Your task to perform on an android device: Go to internet settings Image 0: 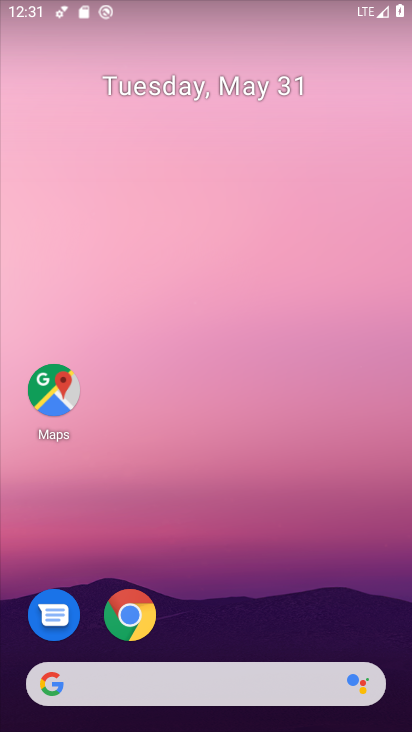
Step 0: drag from (224, 627) to (247, 431)
Your task to perform on an android device: Go to internet settings Image 1: 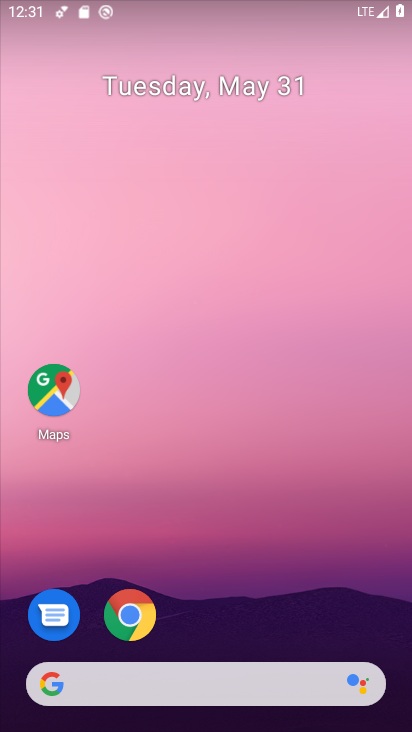
Step 1: drag from (242, 617) to (278, 21)
Your task to perform on an android device: Go to internet settings Image 2: 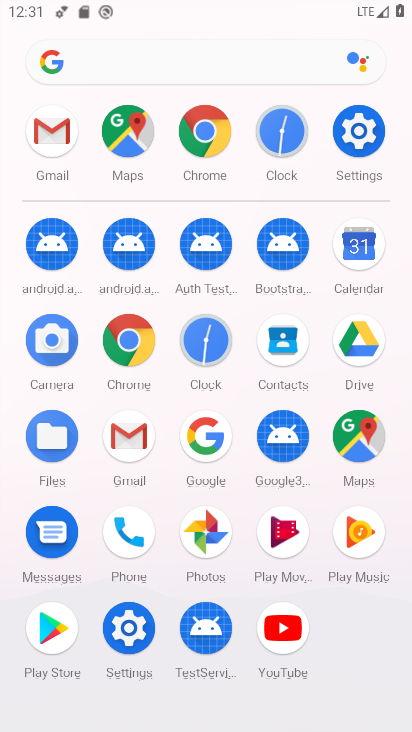
Step 2: click (355, 171)
Your task to perform on an android device: Go to internet settings Image 3: 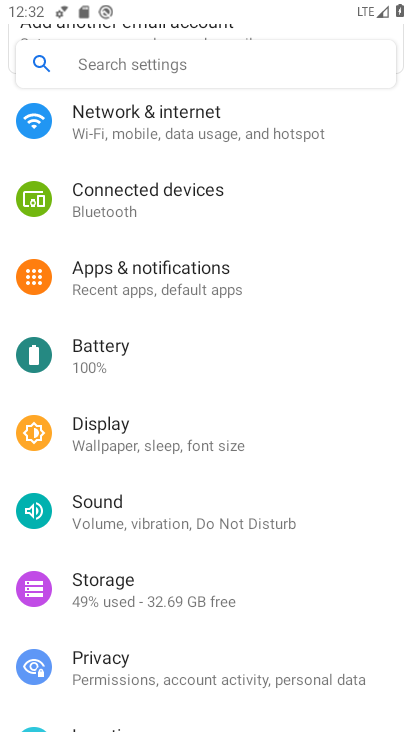
Step 3: click (179, 140)
Your task to perform on an android device: Go to internet settings Image 4: 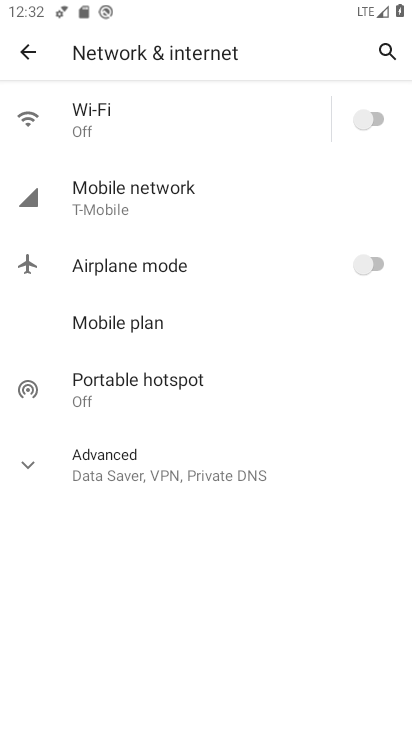
Step 4: task complete